Your task to perform on an android device: Open calendar and show me the fourth week of next month Image 0: 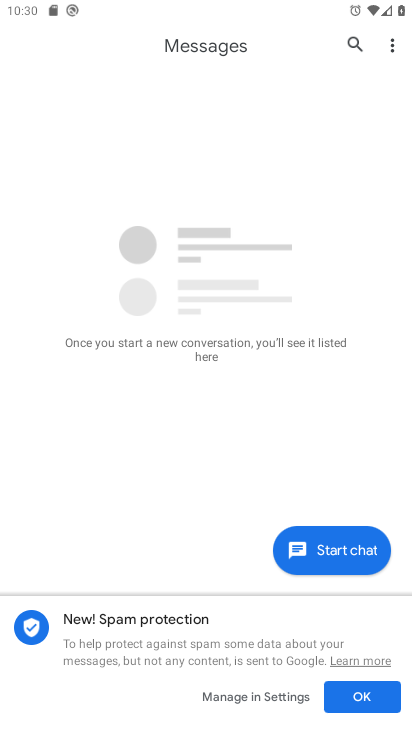
Step 0: drag from (210, 647) to (221, 24)
Your task to perform on an android device: Open calendar and show me the fourth week of next month Image 1: 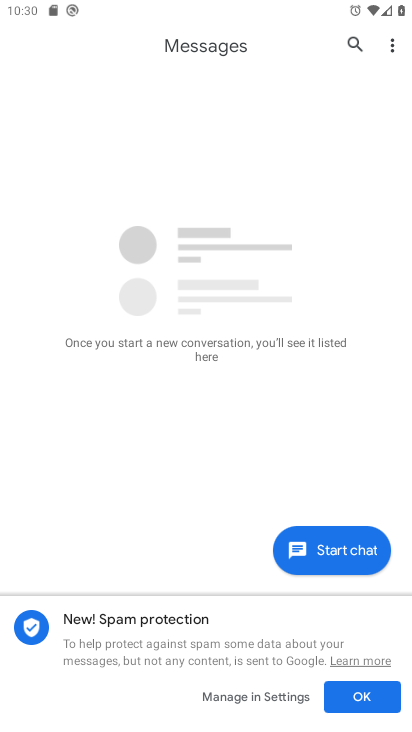
Step 1: press home button
Your task to perform on an android device: Open calendar and show me the fourth week of next month Image 2: 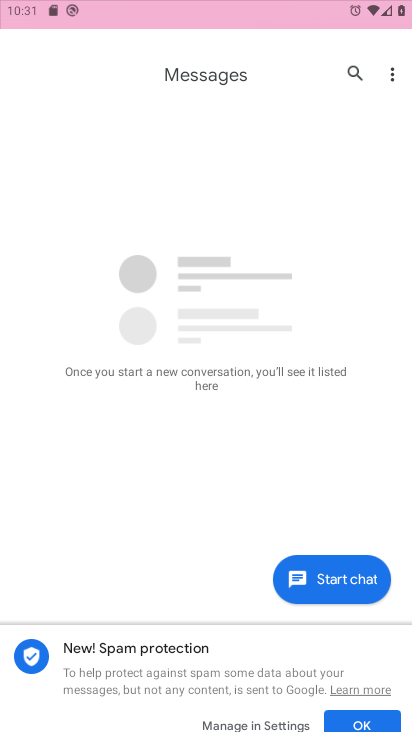
Step 2: drag from (226, 661) to (270, 321)
Your task to perform on an android device: Open calendar and show me the fourth week of next month Image 3: 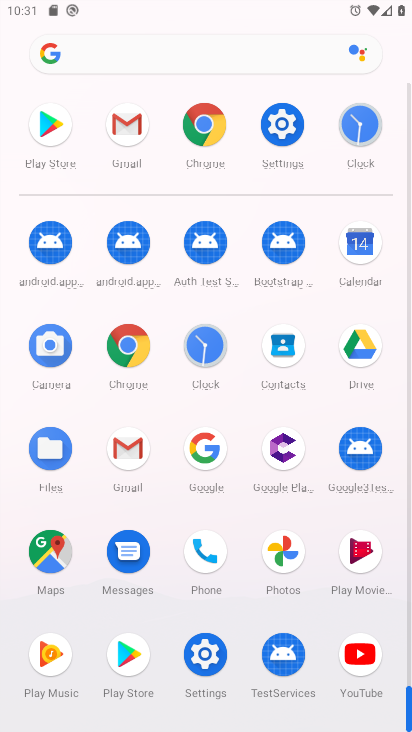
Step 3: click (356, 241)
Your task to perform on an android device: Open calendar and show me the fourth week of next month Image 4: 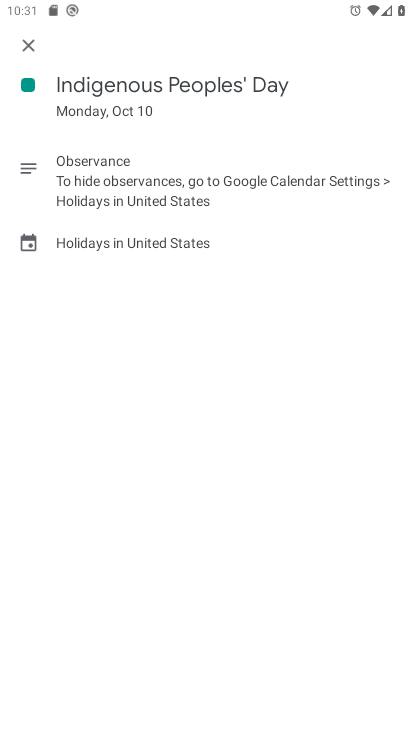
Step 4: drag from (222, 667) to (267, 370)
Your task to perform on an android device: Open calendar and show me the fourth week of next month Image 5: 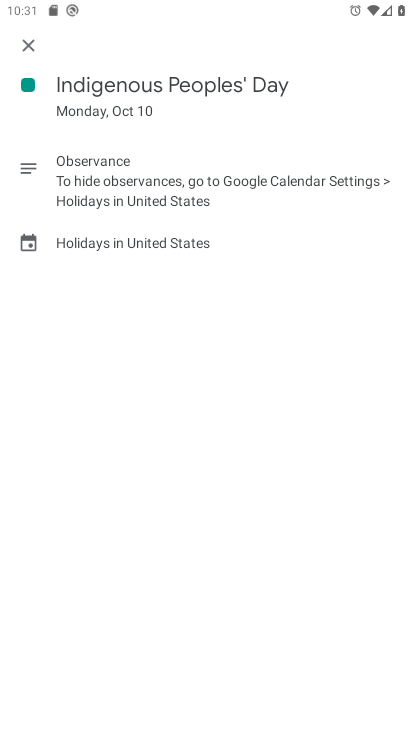
Step 5: drag from (257, 169) to (270, 573)
Your task to perform on an android device: Open calendar and show me the fourth week of next month Image 6: 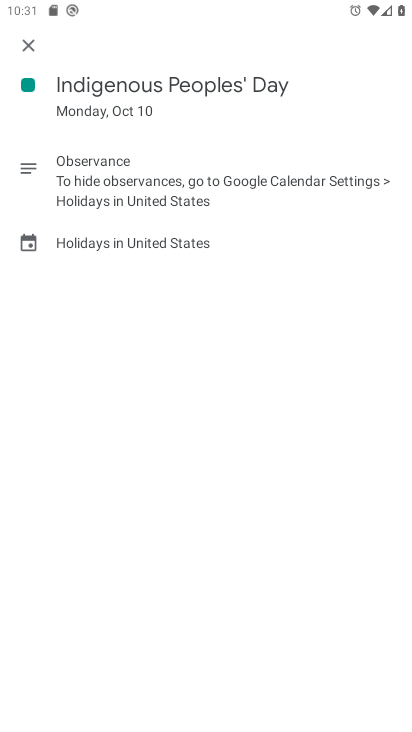
Step 6: press home button
Your task to perform on an android device: Open calendar and show me the fourth week of next month Image 7: 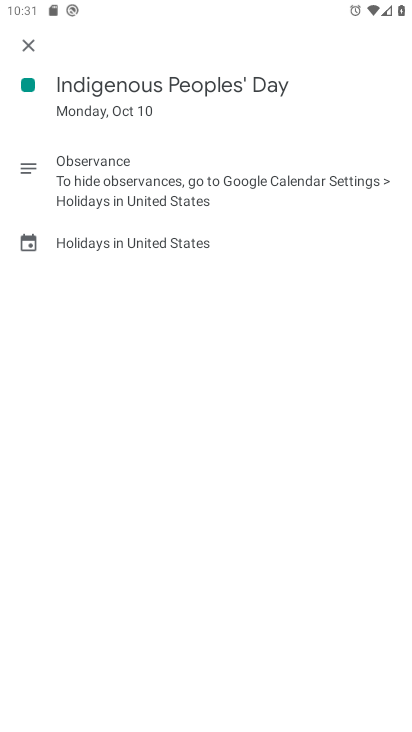
Step 7: drag from (184, 648) to (199, 196)
Your task to perform on an android device: Open calendar and show me the fourth week of next month Image 8: 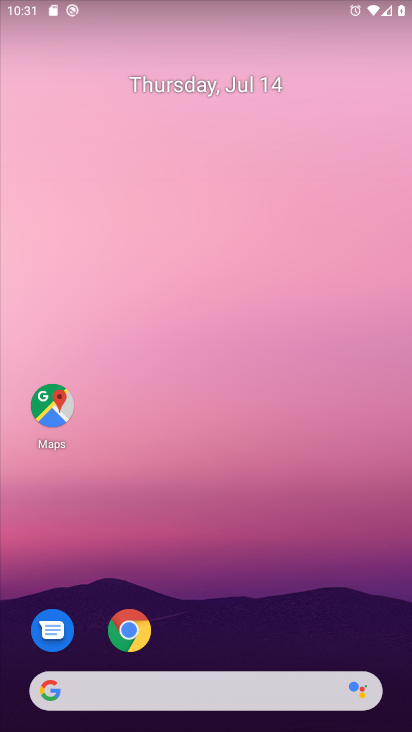
Step 8: drag from (177, 615) to (196, 5)
Your task to perform on an android device: Open calendar and show me the fourth week of next month Image 9: 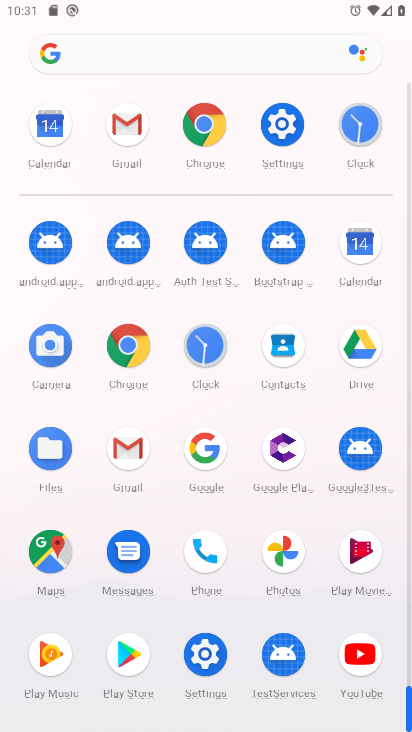
Step 9: click (359, 233)
Your task to perform on an android device: Open calendar and show me the fourth week of next month Image 10: 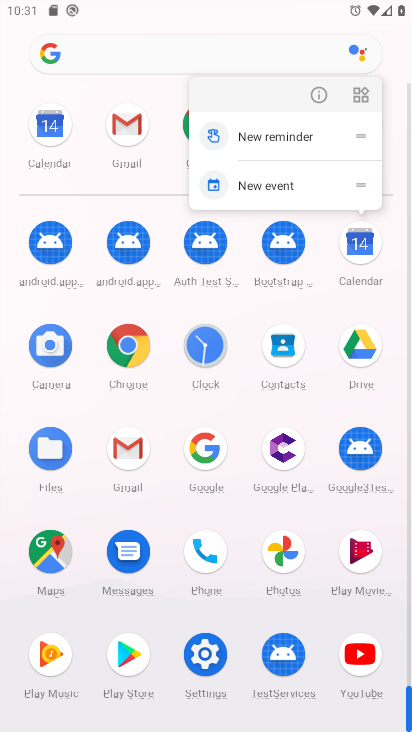
Step 10: click (312, 97)
Your task to perform on an android device: Open calendar and show me the fourth week of next month Image 11: 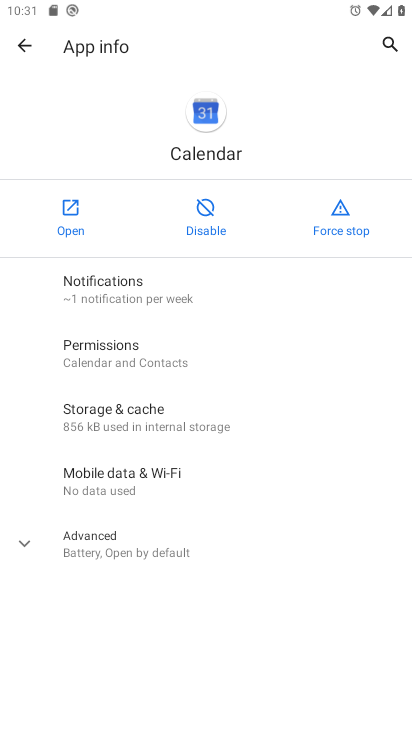
Step 11: click (57, 208)
Your task to perform on an android device: Open calendar and show me the fourth week of next month Image 12: 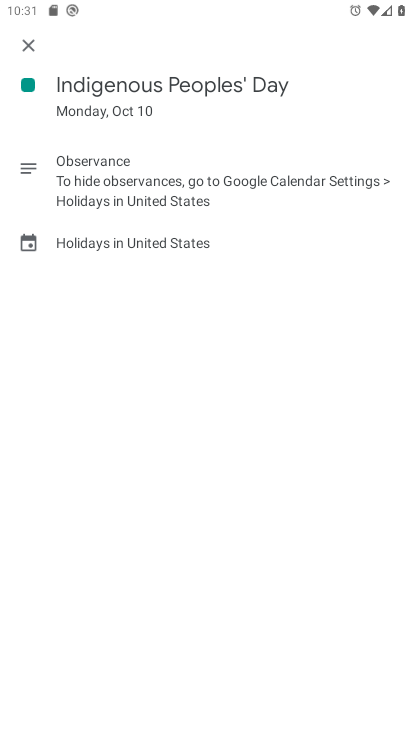
Step 12: click (31, 47)
Your task to perform on an android device: Open calendar and show me the fourth week of next month Image 13: 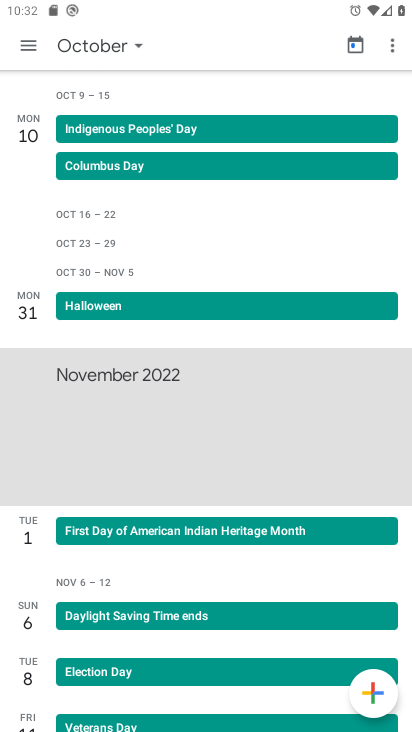
Step 13: click (92, 56)
Your task to perform on an android device: Open calendar and show me the fourth week of next month Image 14: 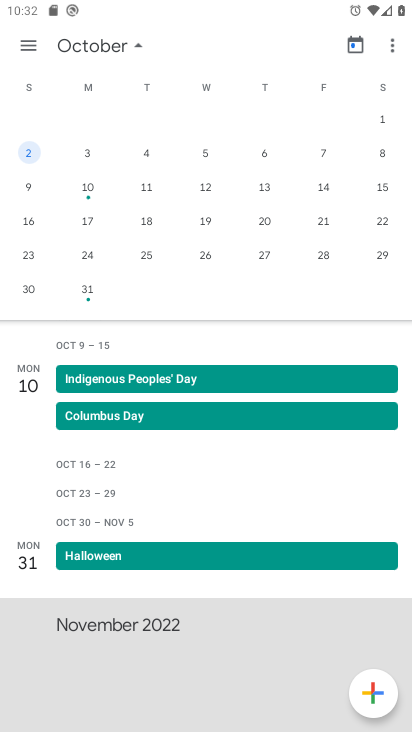
Step 14: drag from (168, 671) to (204, 156)
Your task to perform on an android device: Open calendar and show me the fourth week of next month Image 15: 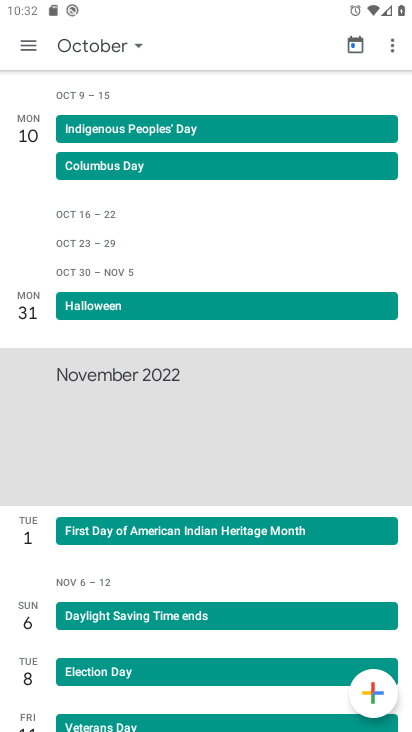
Step 15: drag from (121, 612) to (272, 112)
Your task to perform on an android device: Open calendar and show me the fourth week of next month Image 16: 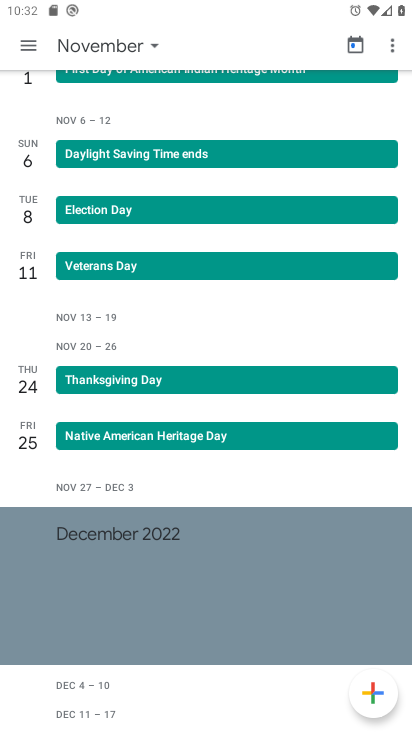
Step 16: drag from (271, 582) to (268, 202)
Your task to perform on an android device: Open calendar and show me the fourth week of next month Image 17: 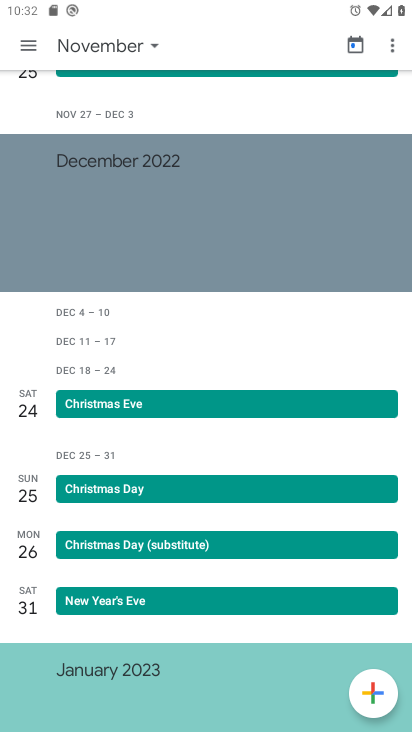
Step 17: drag from (242, 265) to (188, 721)
Your task to perform on an android device: Open calendar and show me the fourth week of next month Image 18: 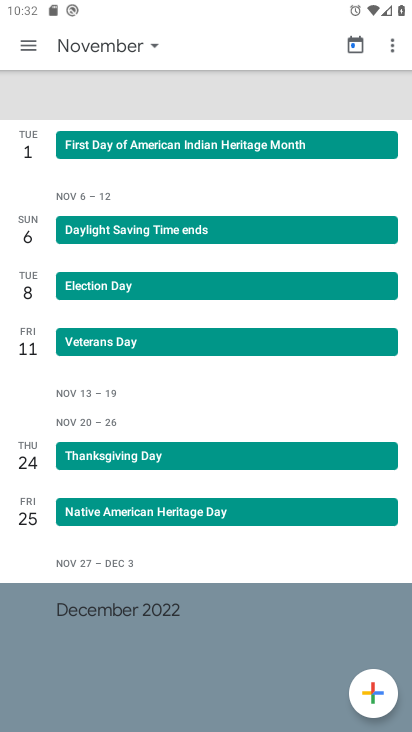
Step 18: click (358, 48)
Your task to perform on an android device: Open calendar and show me the fourth week of next month Image 19: 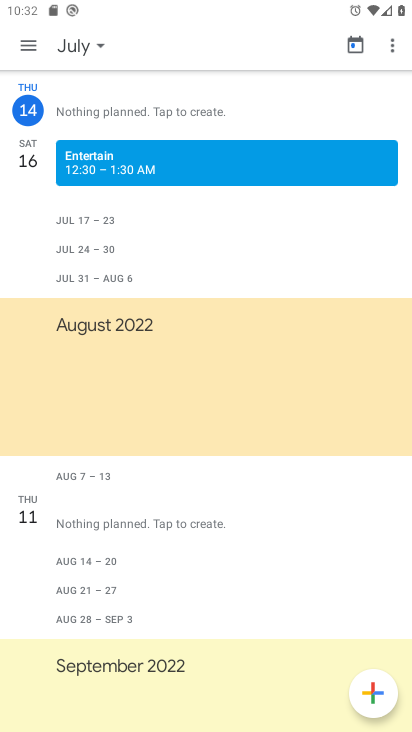
Step 19: click (88, 45)
Your task to perform on an android device: Open calendar and show me the fourth week of next month Image 20: 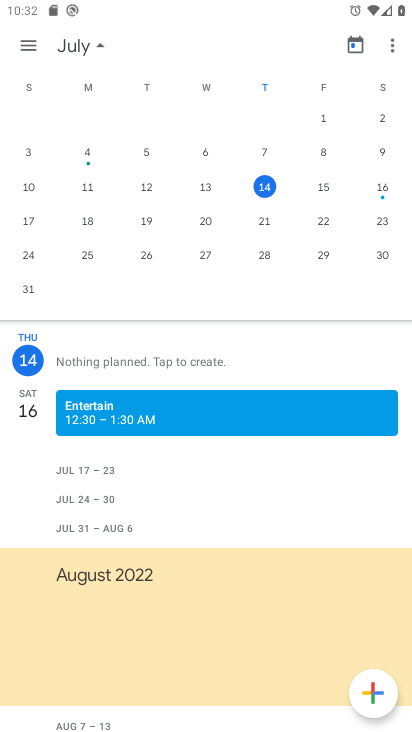
Step 20: drag from (341, 170) to (4, 185)
Your task to perform on an android device: Open calendar and show me the fourth week of next month Image 21: 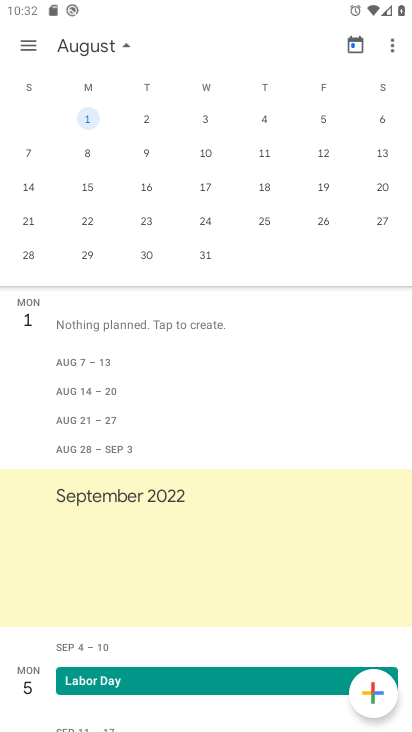
Step 21: click (317, 226)
Your task to perform on an android device: Open calendar and show me the fourth week of next month Image 22: 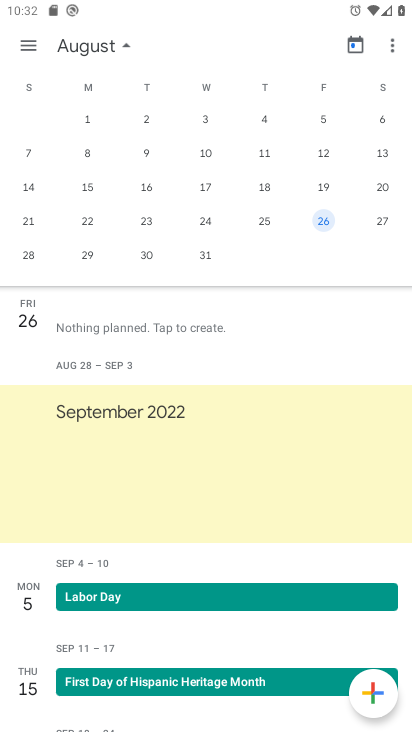
Step 22: task complete